Your task to perform on an android device: add a contact Image 0: 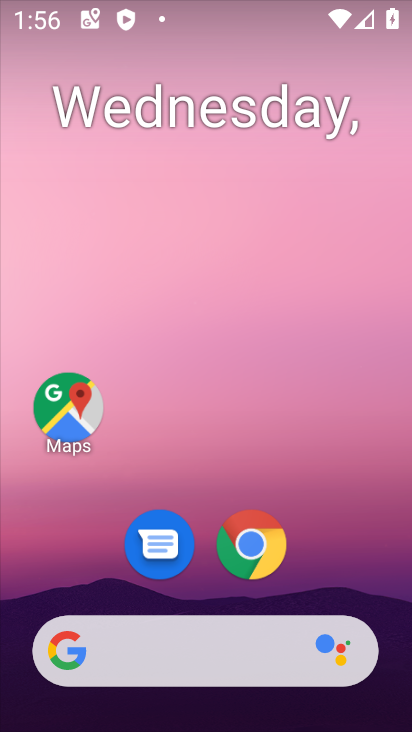
Step 0: drag from (355, 543) to (328, 89)
Your task to perform on an android device: add a contact Image 1: 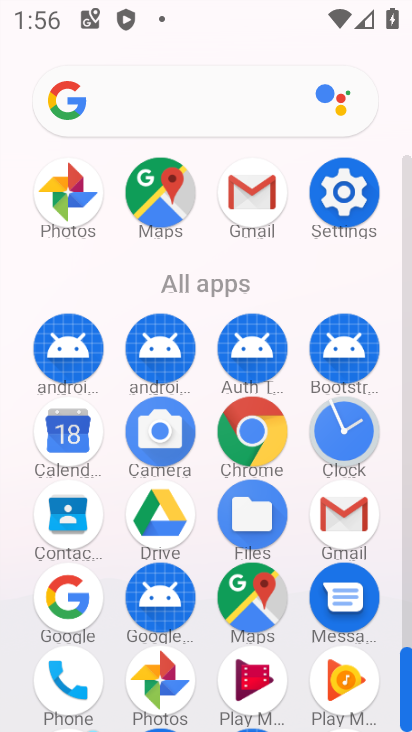
Step 1: click (49, 533)
Your task to perform on an android device: add a contact Image 2: 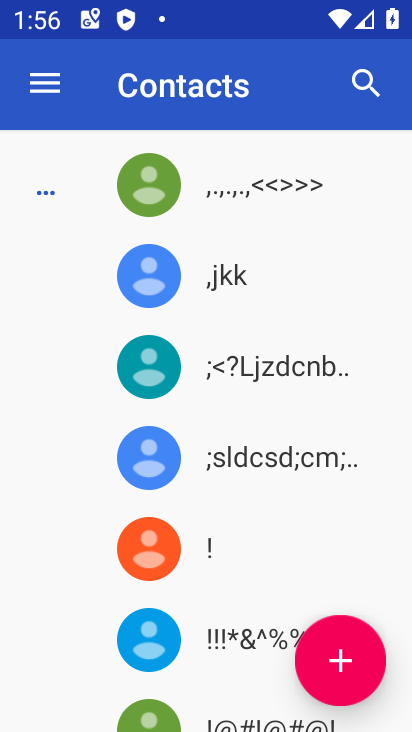
Step 2: click (362, 681)
Your task to perform on an android device: add a contact Image 3: 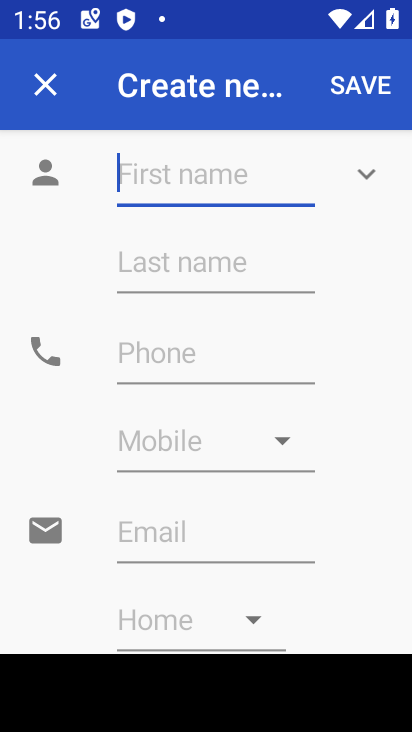
Step 3: type "addasd"
Your task to perform on an android device: add a contact Image 4: 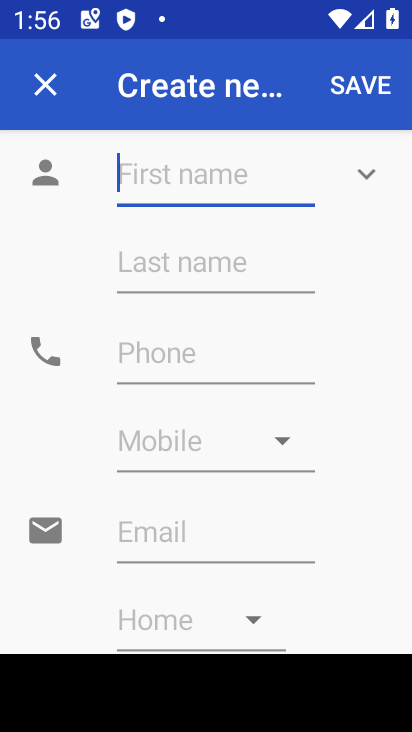
Step 4: click (196, 272)
Your task to perform on an android device: add a contact Image 5: 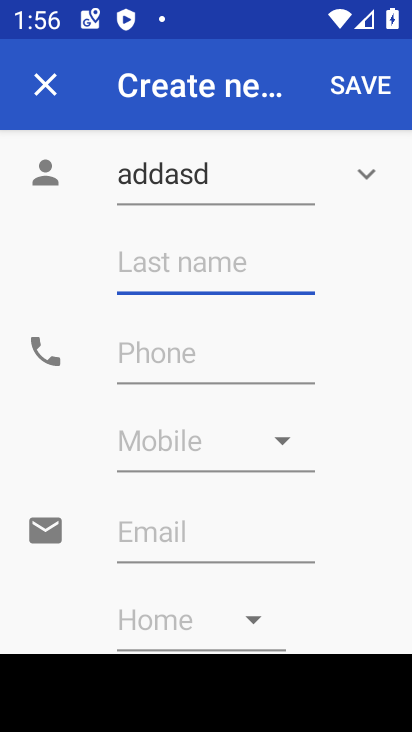
Step 5: type "dasd"
Your task to perform on an android device: add a contact Image 6: 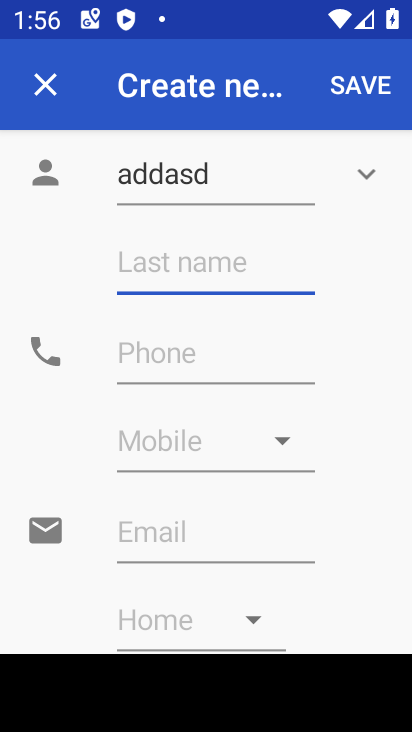
Step 6: click (198, 330)
Your task to perform on an android device: add a contact Image 7: 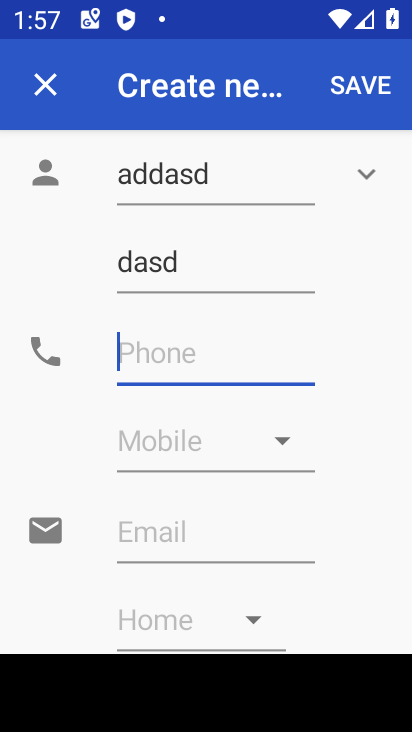
Step 7: type "32423432"
Your task to perform on an android device: add a contact Image 8: 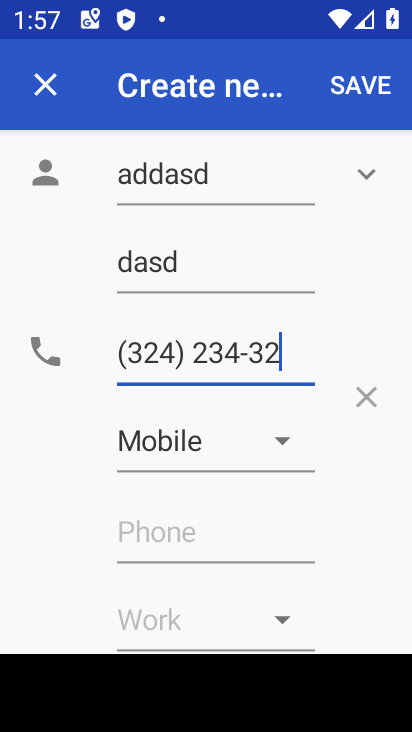
Step 8: click (364, 82)
Your task to perform on an android device: add a contact Image 9: 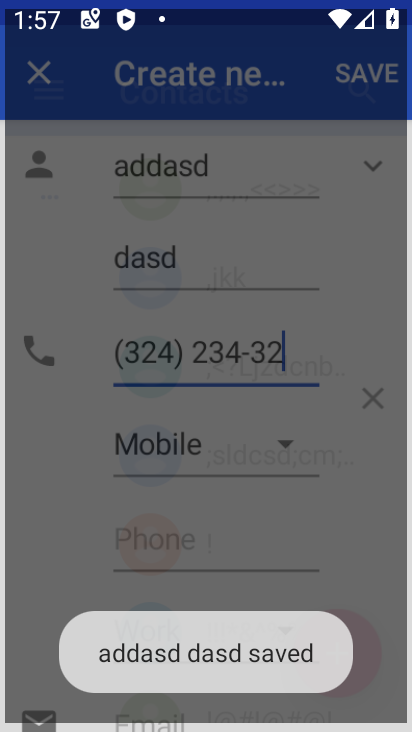
Step 9: task complete